Your task to perform on an android device: change the clock style Image 0: 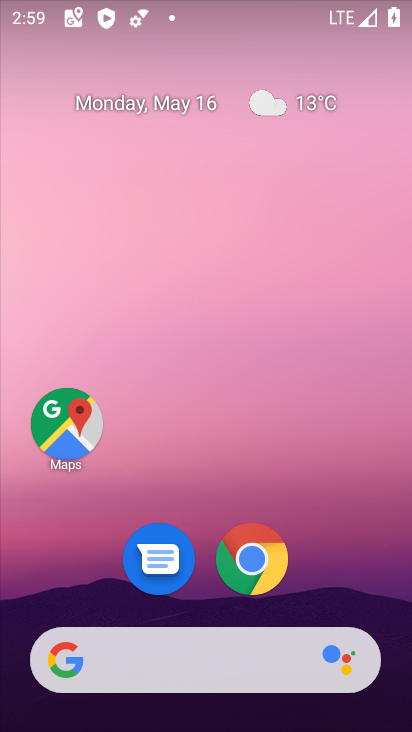
Step 0: drag from (158, 587) to (284, 96)
Your task to perform on an android device: change the clock style Image 1: 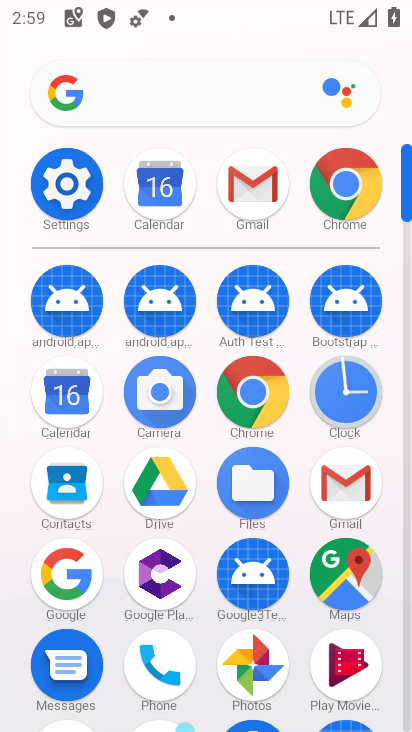
Step 1: click (354, 404)
Your task to perform on an android device: change the clock style Image 2: 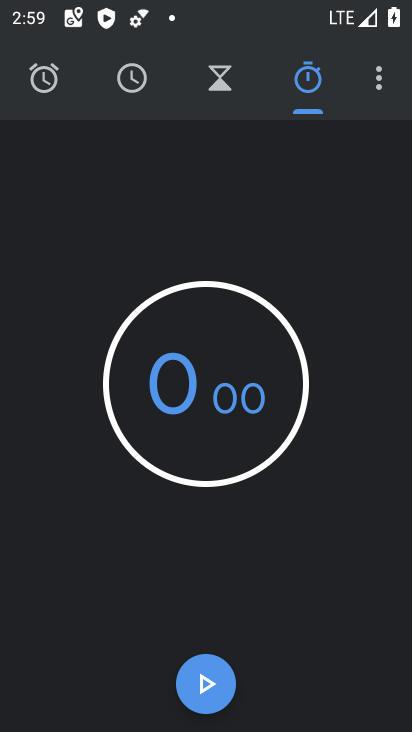
Step 2: click (383, 73)
Your task to perform on an android device: change the clock style Image 3: 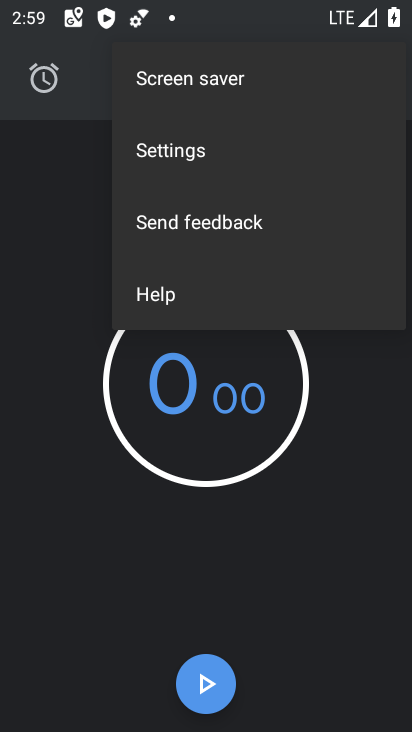
Step 3: click (225, 162)
Your task to perform on an android device: change the clock style Image 4: 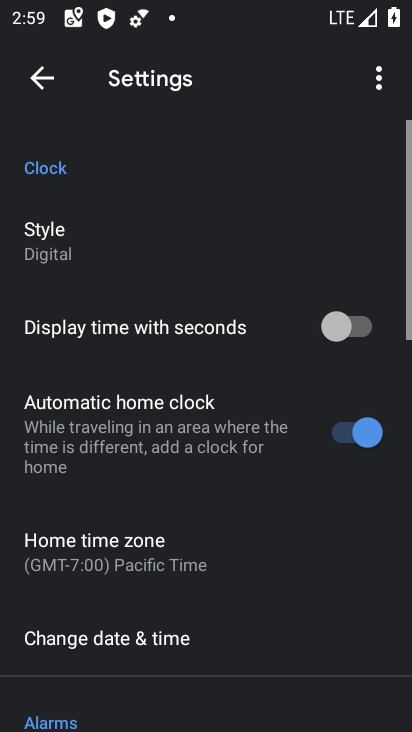
Step 4: click (59, 246)
Your task to perform on an android device: change the clock style Image 5: 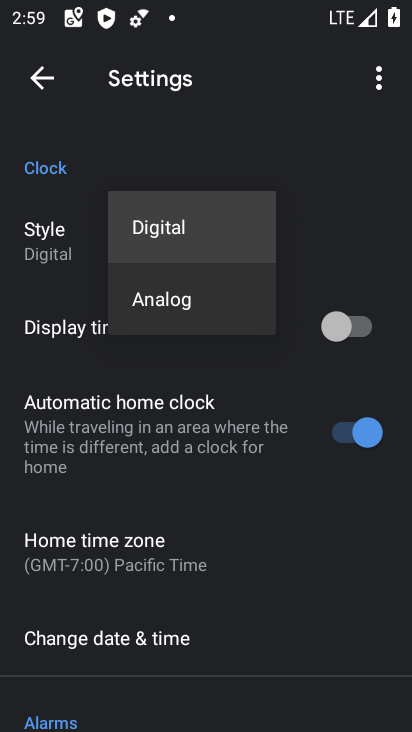
Step 5: click (136, 308)
Your task to perform on an android device: change the clock style Image 6: 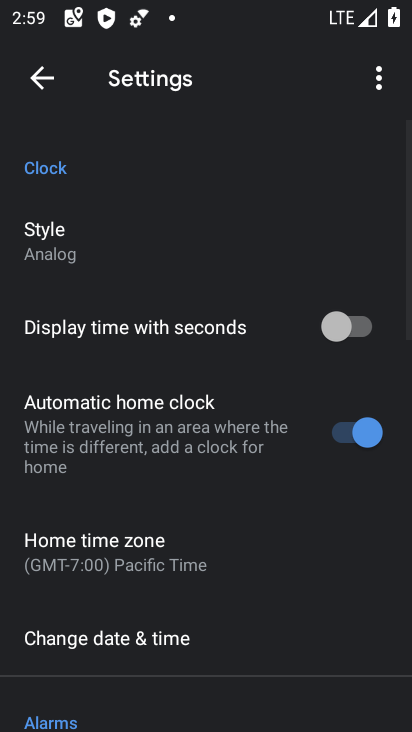
Step 6: task complete